Your task to perform on an android device: check out phone information Image 0: 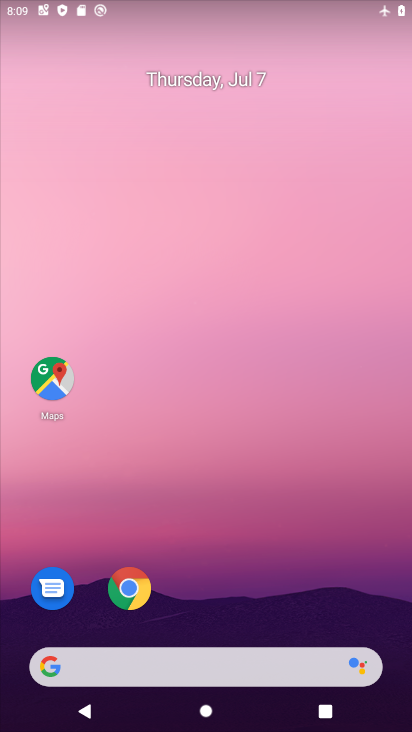
Step 0: drag from (286, 523) to (252, 90)
Your task to perform on an android device: check out phone information Image 1: 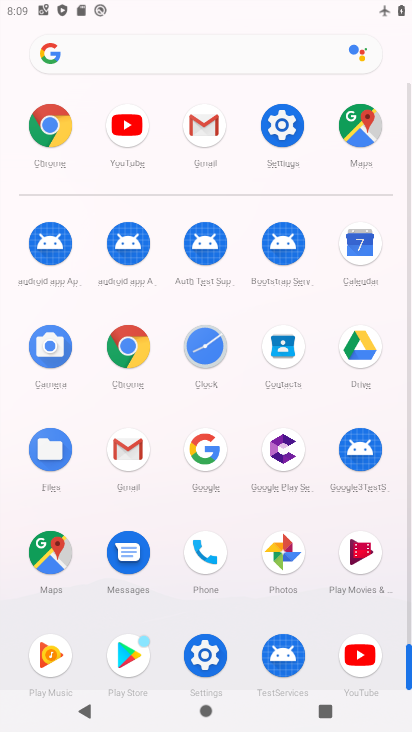
Step 1: click (216, 550)
Your task to perform on an android device: check out phone information Image 2: 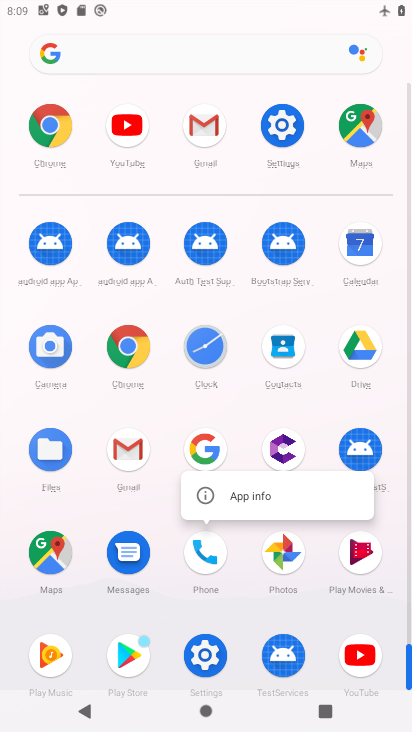
Step 2: click (232, 500)
Your task to perform on an android device: check out phone information Image 3: 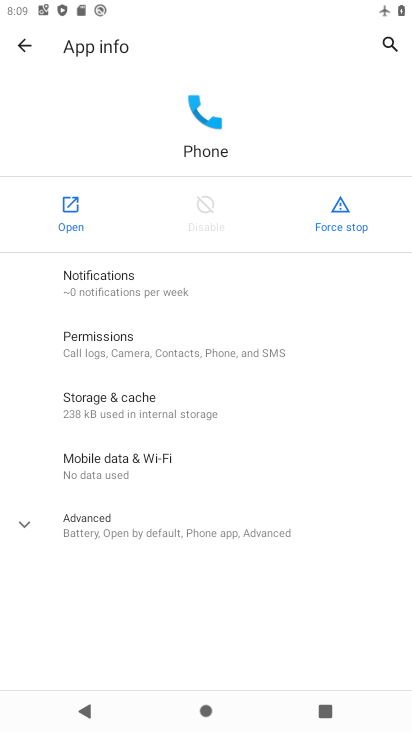
Step 3: click (126, 530)
Your task to perform on an android device: check out phone information Image 4: 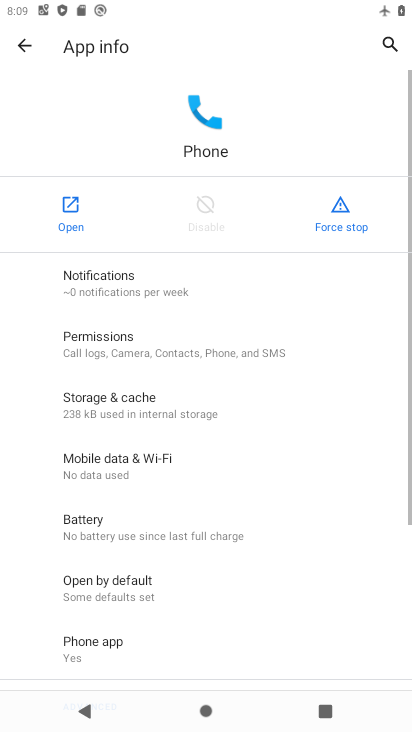
Step 4: task complete